Your task to perform on an android device: Set the phone to "Do not disturb". Image 0: 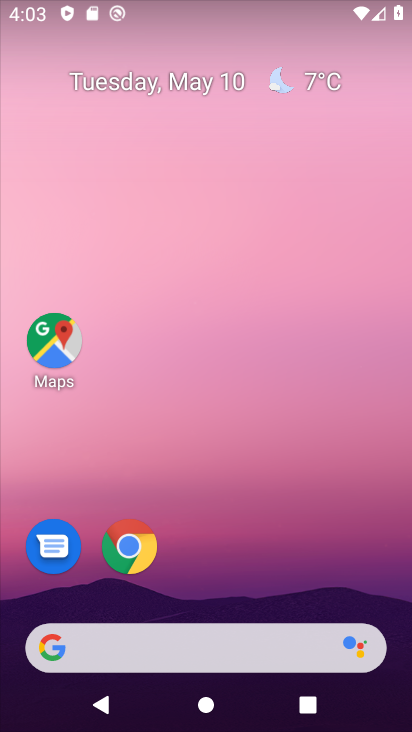
Step 0: drag from (202, 624) to (287, 153)
Your task to perform on an android device: Set the phone to "Do not disturb". Image 1: 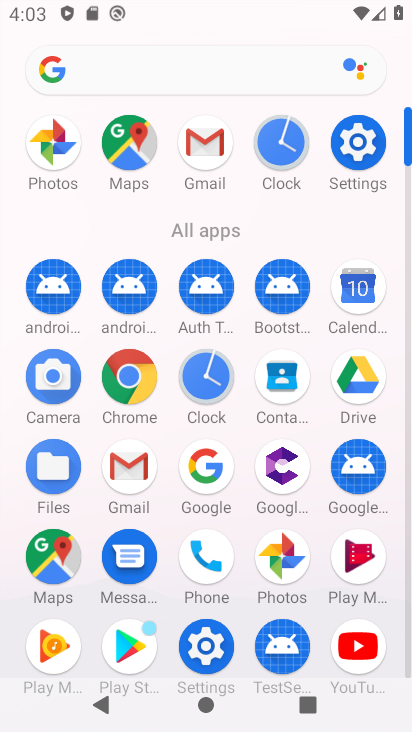
Step 1: click (202, 648)
Your task to perform on an android device: Set the phone to "Do not disturb". Image 2: 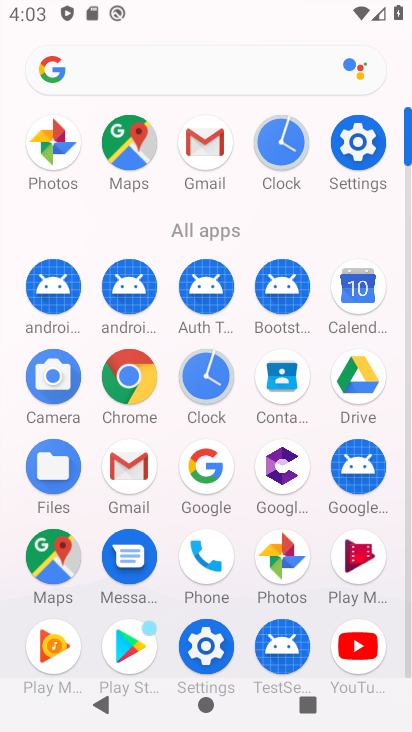
Step 2: click (228, 651)
Your task to perform on an android device: Set the phone to "Do not disturb". Image 3: 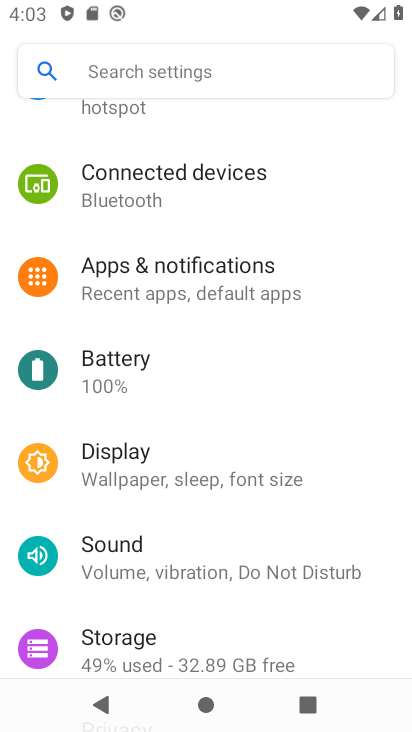
Step 3: click (209, 285)
Your task to perform on an android device: Set the phone to "Do not disturb". Image 4: 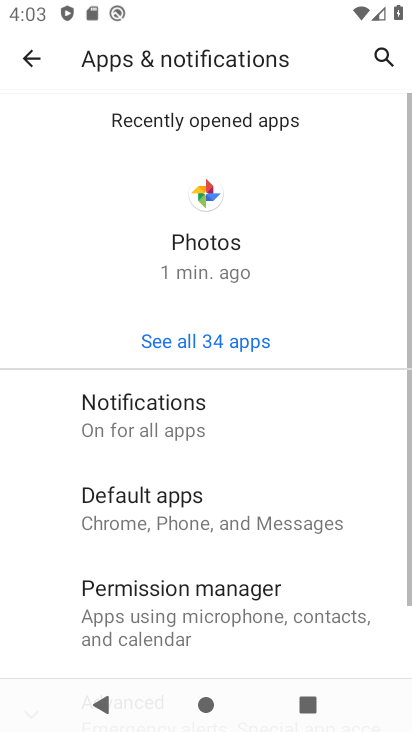
Step 4: drag from (236, 641) to (322, 341)
Your task to perform on an android device: Set the phone to "Do not disturb". Image 5: 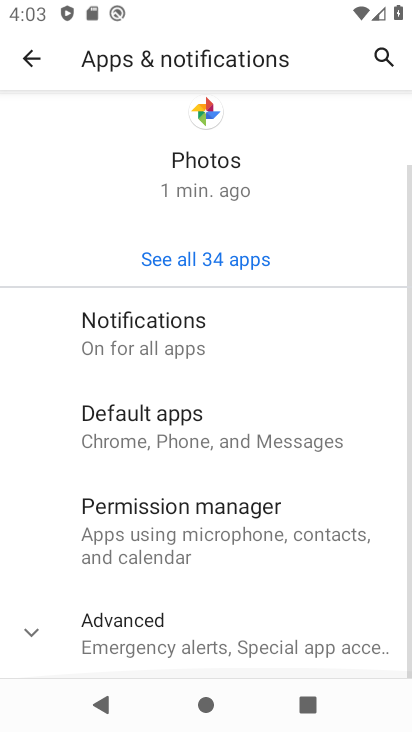
Step 5: click (224, 655)
Your task to perform on an android device: Set the phone to "Do not disturb". Image 6: 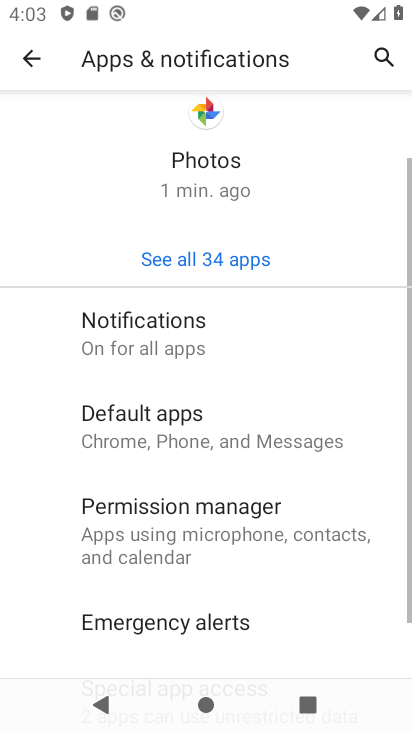
Step 6: click (208, 352)
Your task to perform on an android device: Set the phone to "Do not disturb". Image 7: 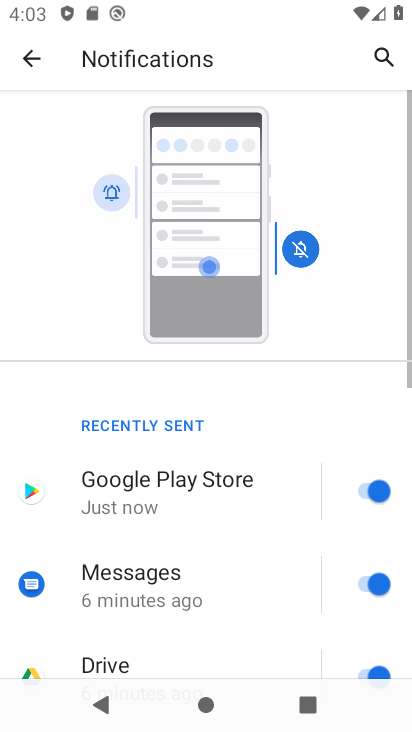
Step 7: drag from (203, 598) to (349, 77)
Your task to perform on an android device: Set the phone to "Do not disturb". Image 8: 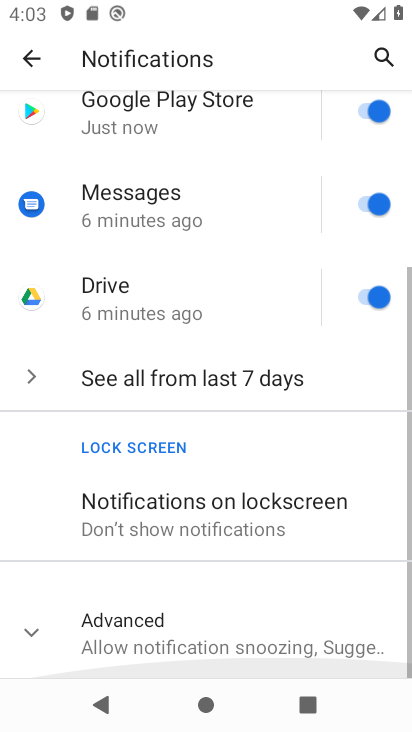
Step 8: drag from (195, 651) to (267, 361)
Your task to perform on an android device: Set the phone to "Do not disturb". Image 9: 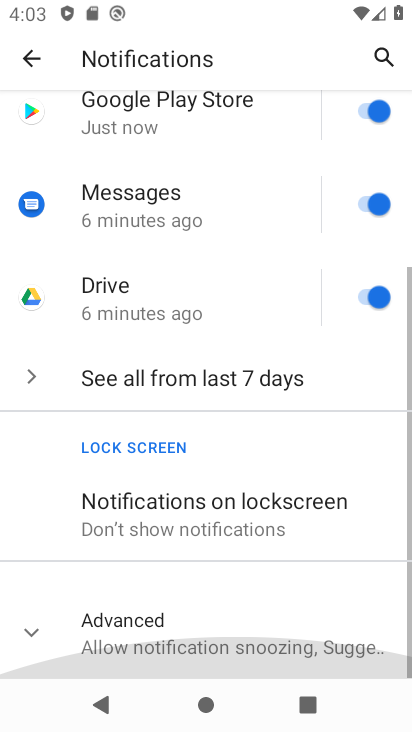
Step 9: click (231, 618)
Your task to perform on an android device: Set the phone to "Do not disturb". Image 10: 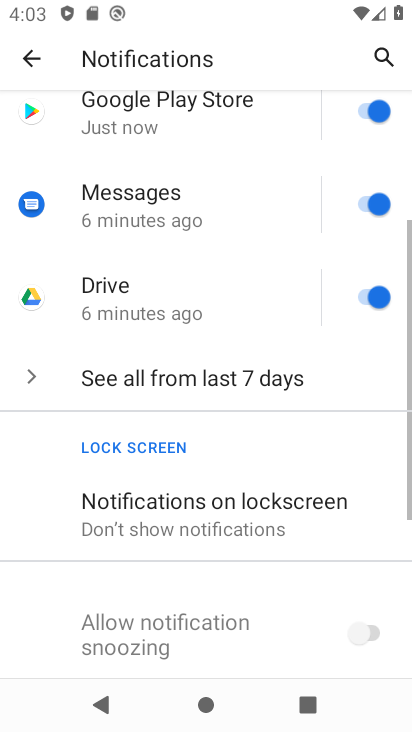
Step 10: drag from (227, 635) to (352, 116)
Your task to perform on an android device: Set the phone to "Do not disturb". Image 11: 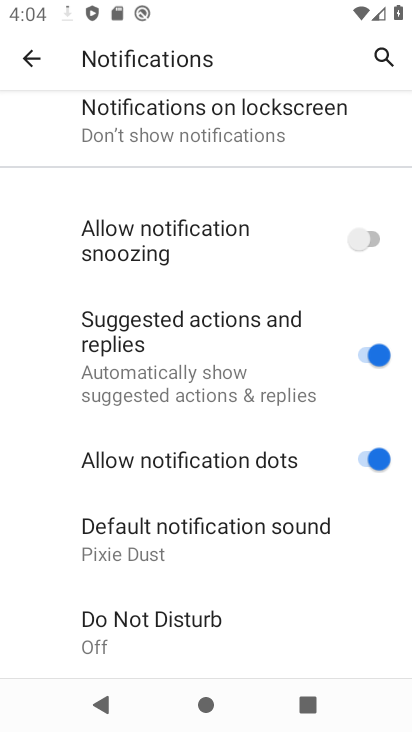
Step 11: click (184, 642)
Your task to perform on an android device: Set the phone to "Do not disturb". Image 12: 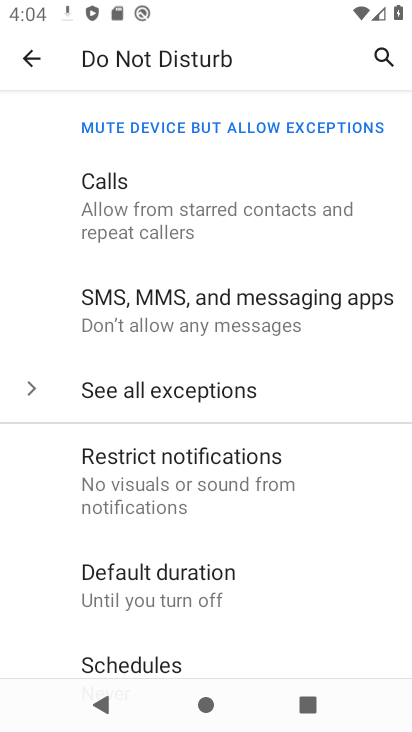
Step 12: drag from (235, 629) to (374, 121)
Your task to perform on an android device: Set the phone to "Do not disturb". Image 13: 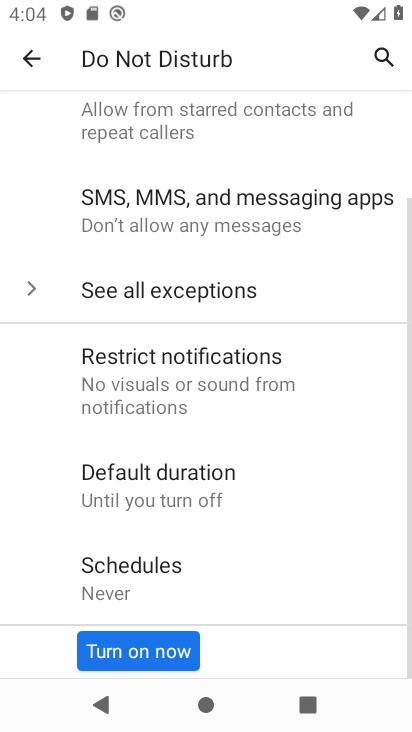
Step 13: click (178, 670)
Your task to perform on an android device: Set the phone to "Do not disturb". Image 14: 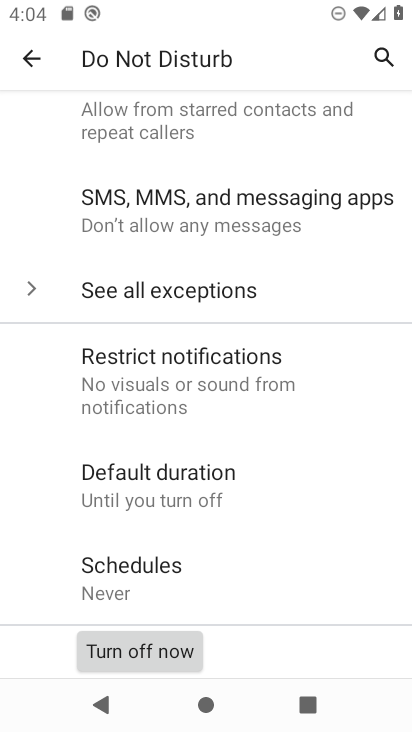
Step 14: task complete